Your task to perform on an android device: turn on data saver in the chrome app Image 0: 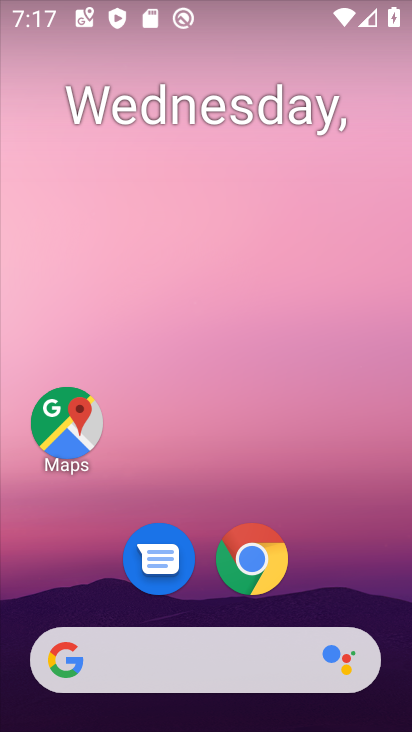
Step 0: click (252, 568)
Your task to perform on an android device: turn on data saver in the chrome app Image 1: 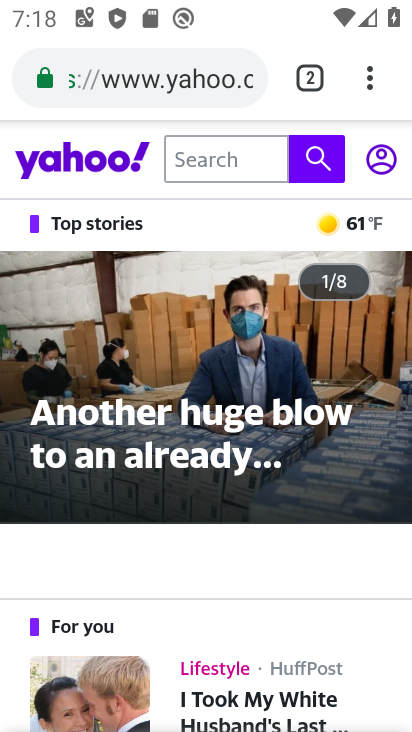
Step 1: drag from (371, 75) to (162, 628)
Your task to perform on an android device: turn on data saver in the chrome app Image 2: 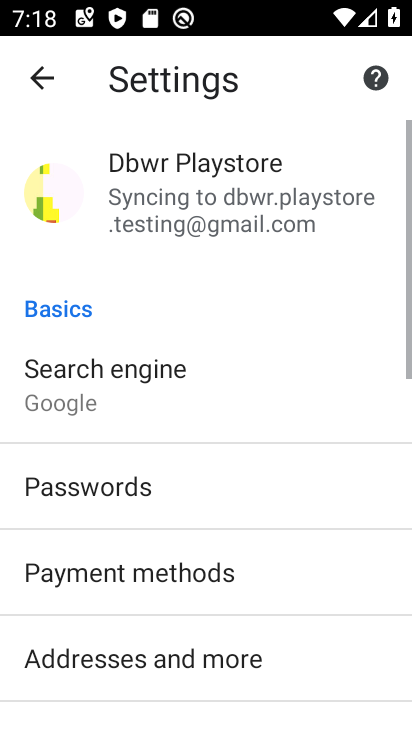
Step 2: drag from (292, 675) to (268, 343)
Your task to perform on an android device: turn on data saver in the chrome app Image 3: 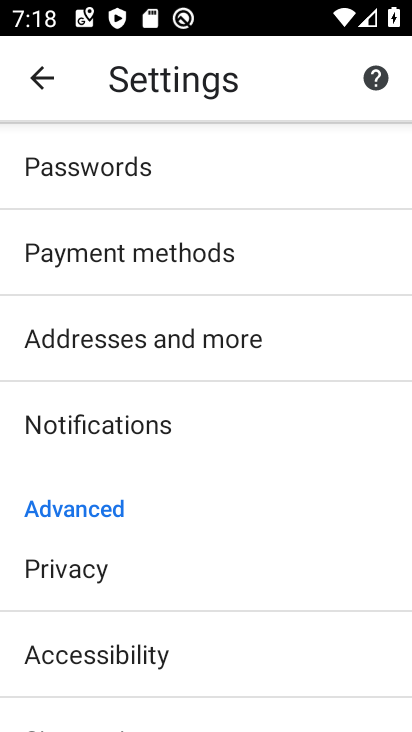
Step 3: drag from (218, 617) to (112, 296)
Your task to perform on an android device: turn on data saver in the chrome app Image 4: 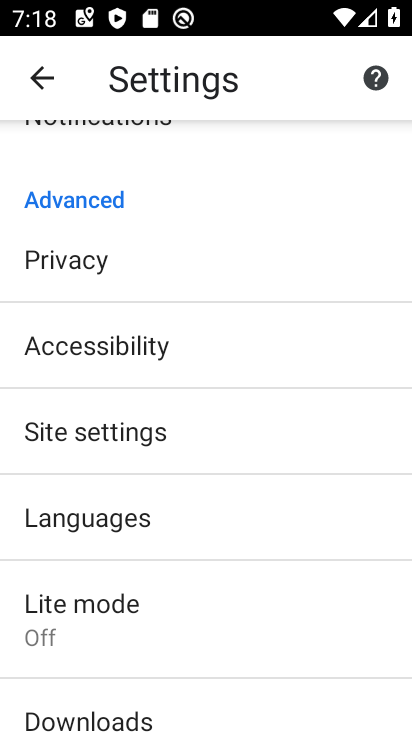
Step 4: drag from (146, 663) to (144, 377)
Your task to perform on an android device: turn on data saver in the chrome app Image 5: 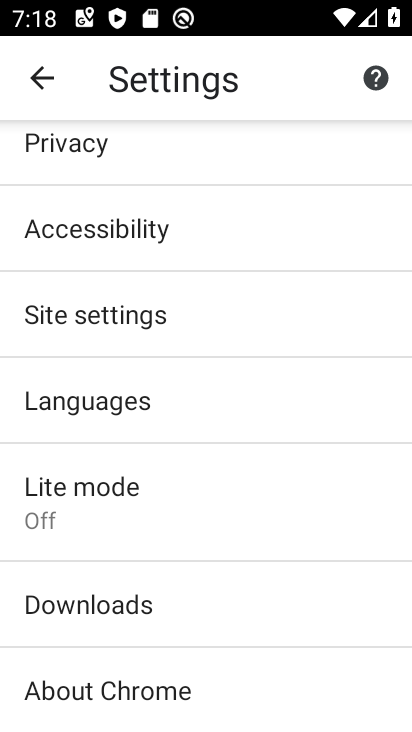
Step 5: drag from (157, 665) to (144, 442)
Your task to perform on an android device: turn on data saver in the chrome app Image 6: 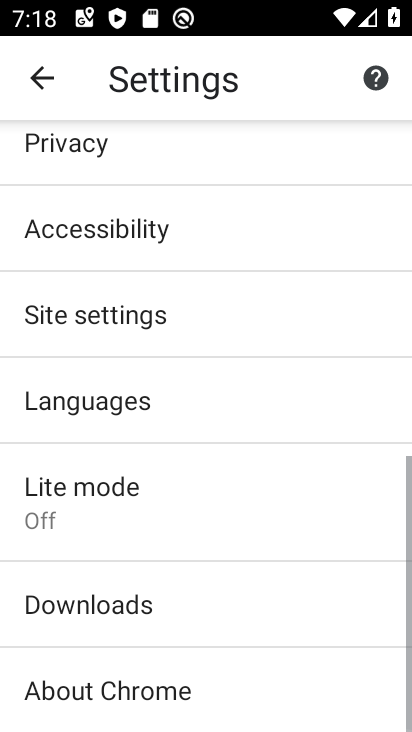
Step 6: click (129, 514)
Your task to perform on an android device: turn on data saver in the chrome app Image 7: 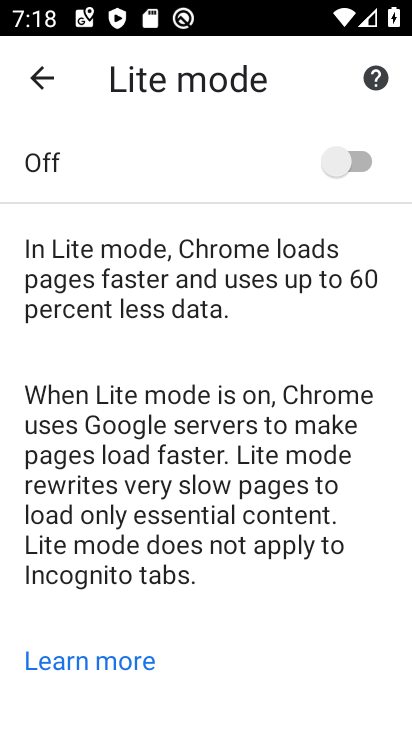
Step 7: click (348, 160)
Your task to perform on an android device: turn on data saver in the chrome app Image 8: 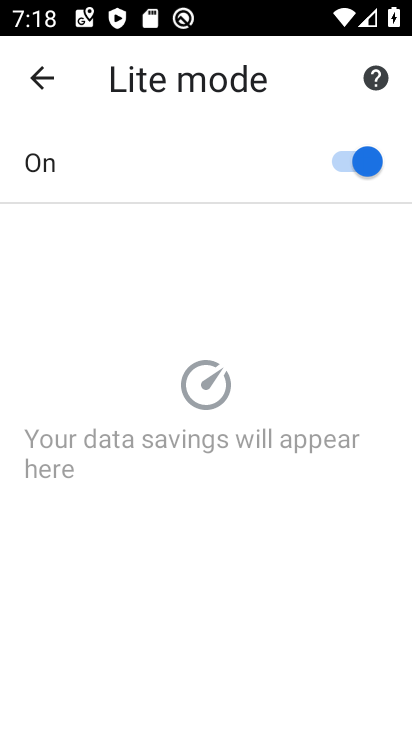
Step 8: task complete